Your task to perform on an android device: open the mobile data screen to see how much data has been used Image 0: 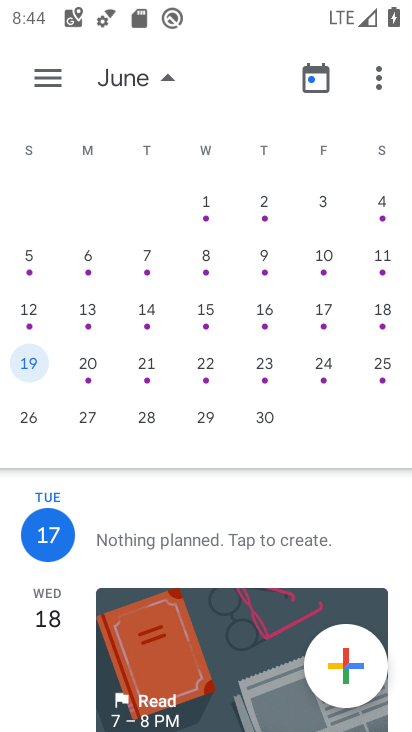
Step 0: press home button
Your task to perform on an android device: open the mobile data screen to see how much data has been used Image 1: 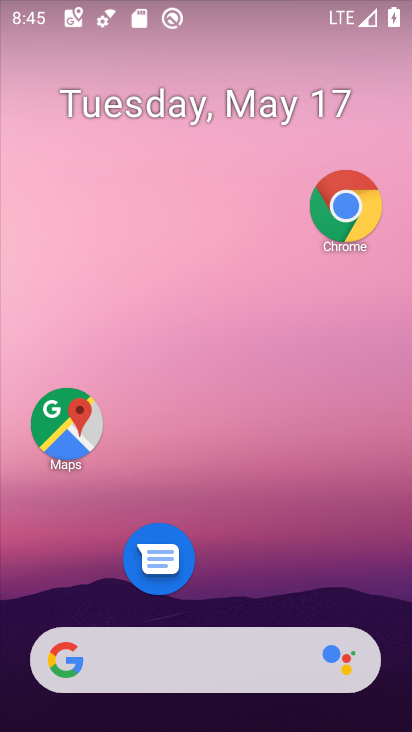
Step 1: drag from (253, 558) to (276, 1)
Your task to perform on an android device: open the mobile data screen to see how much data has been used Image 2: 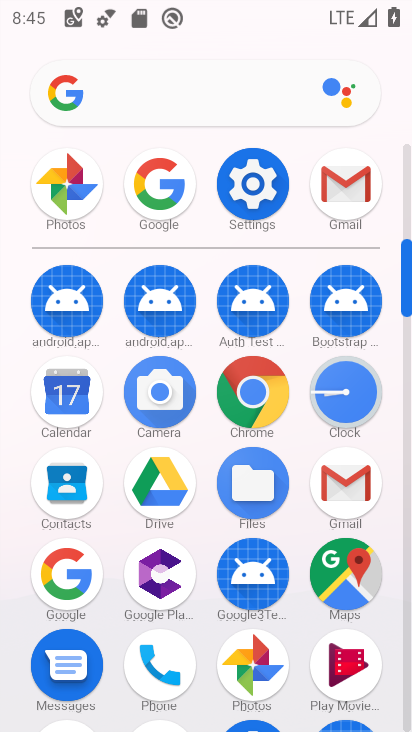
Step 2: click (253, 191)
Your task to perform on an android device: open the mobile data screen to see how much data has been used Image 3: 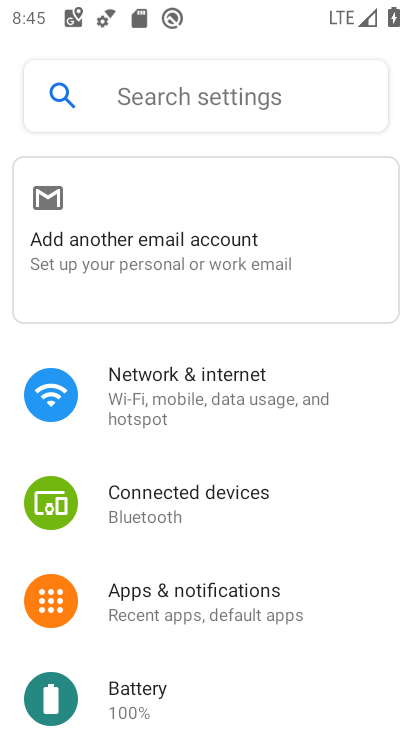
Step 3: click (224, 402)
Your task to perform on an android device: open the mobile data screen to see how much data has been used Image 4: 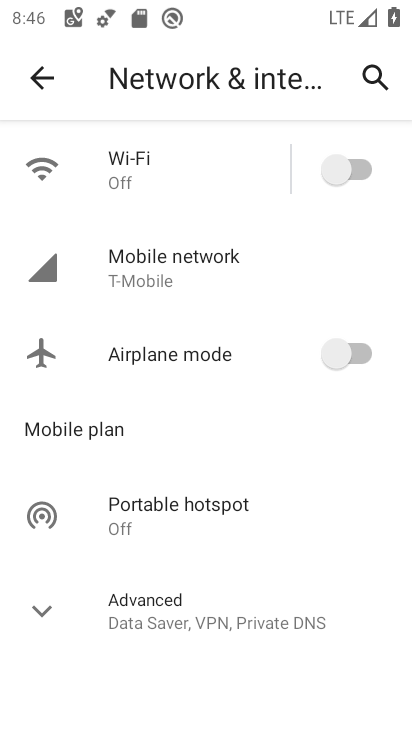
Step 4: click (185, 278)
Your task to perform on an android device: open the mobile data screen to see how much data has been used Image 5: 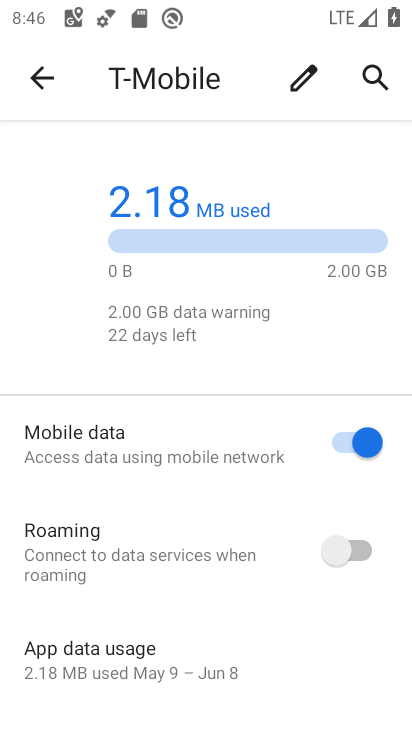
Step 5: drag from (129, 567) to (161, 395)
Your task to perform on an android device: open the mobile data screen to see how much data has been used Image 6: 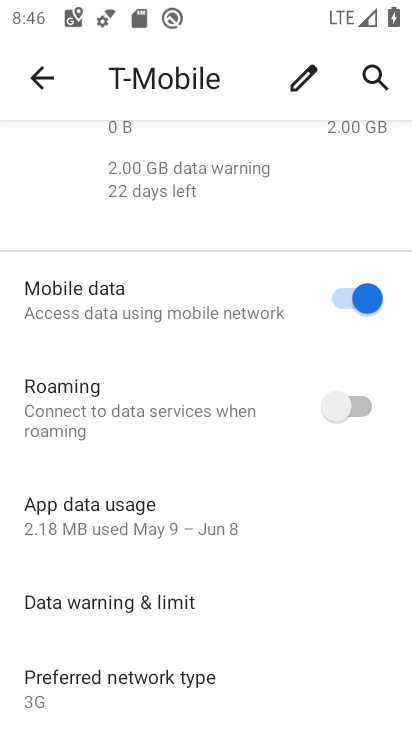
Step 6: click (177, 529)
Your task to perform on an android device: open the mobile data screen to see how much data has been used Image 7: 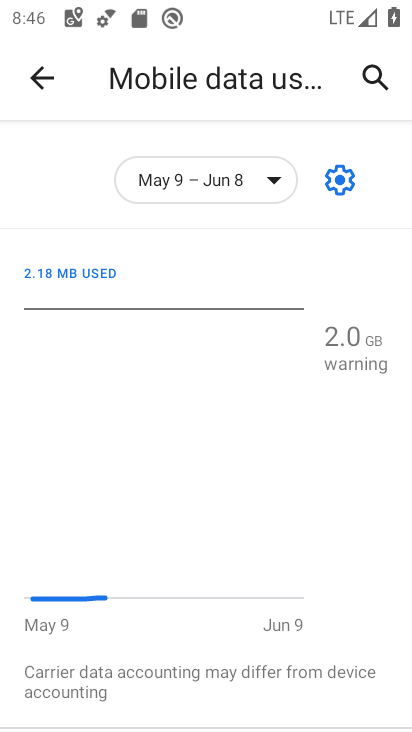
Step 7: task complete